Your task to perform on an android device: change notifications settings Image 0: 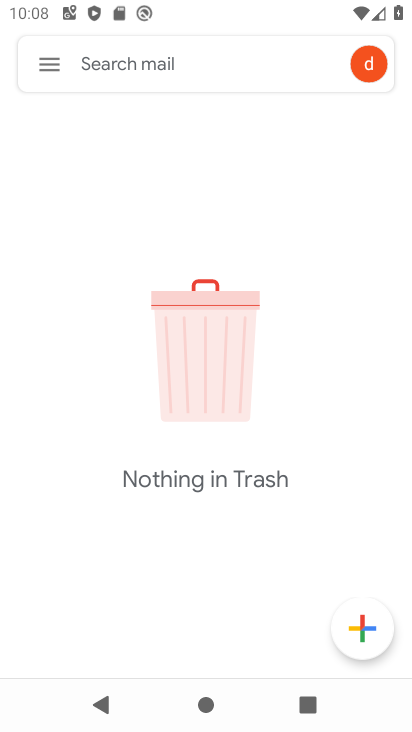
Step 0: press home button
Your task to perform on an android device: change notifications settings Image 1: 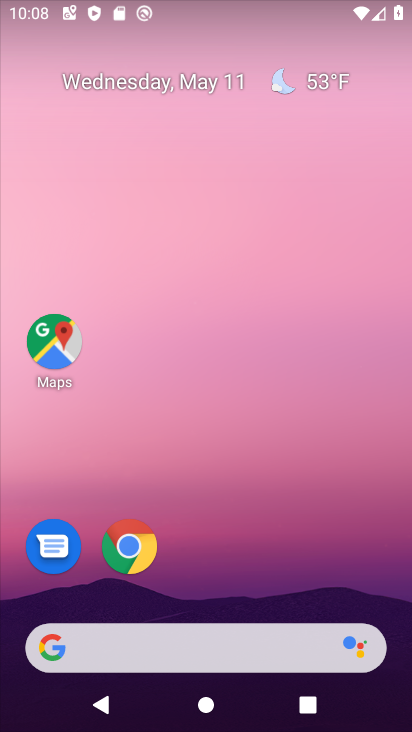
Step 1: drag from (393, 613) to (361, 80)
Your task to perform on an android device: change notifications settings Image 2: 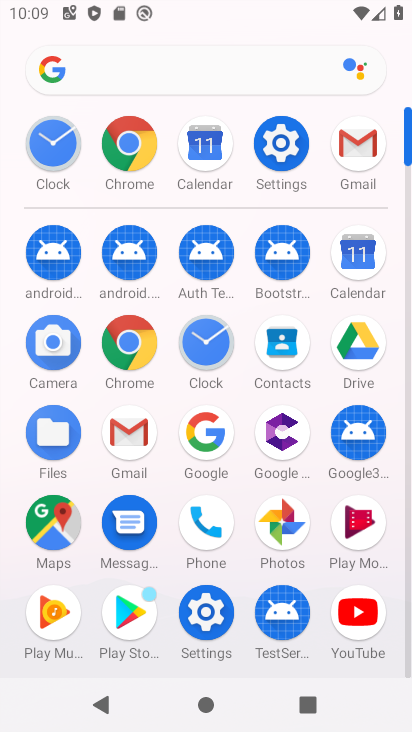
Step 2: click (209, 610)
Your task to perform on an android device: change notifications settings Image 3: 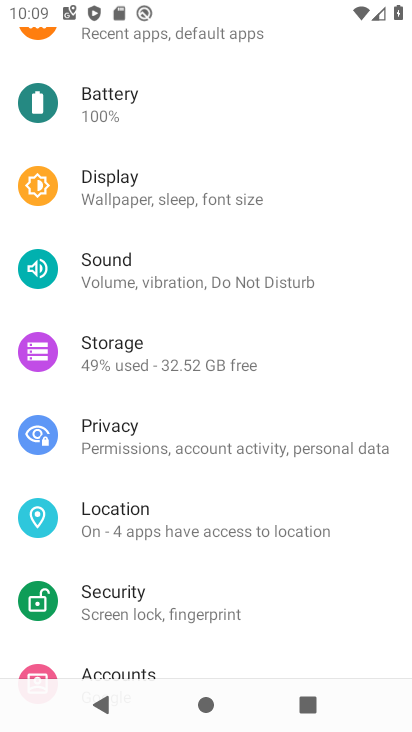
Step 3: drag from (205, 145) to (221, 642)
Your task to perform on an android device: change notifications settings Image 4: 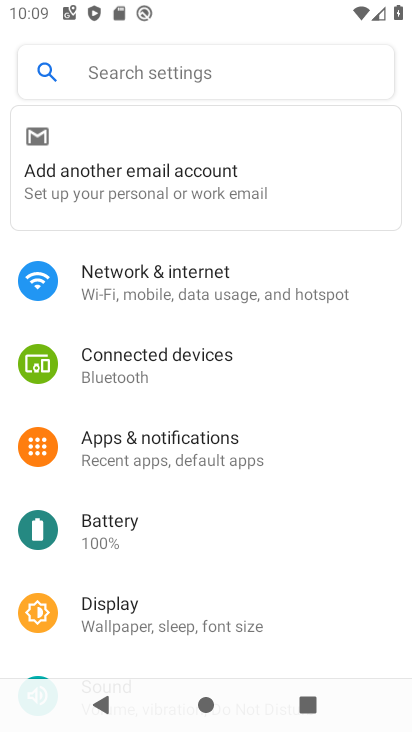
Step 4: click (190, 437)
Your task to perform on an android device: change notifications settings Image 5: 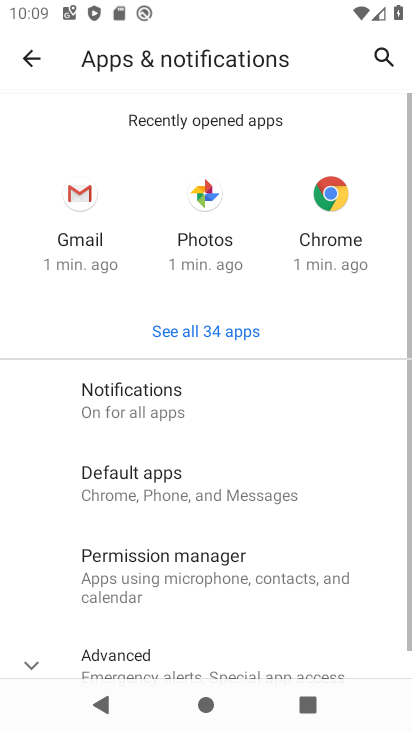
Step 5: click (139, 424)
Your task to perform on an android device: change notifications settings Image 6: 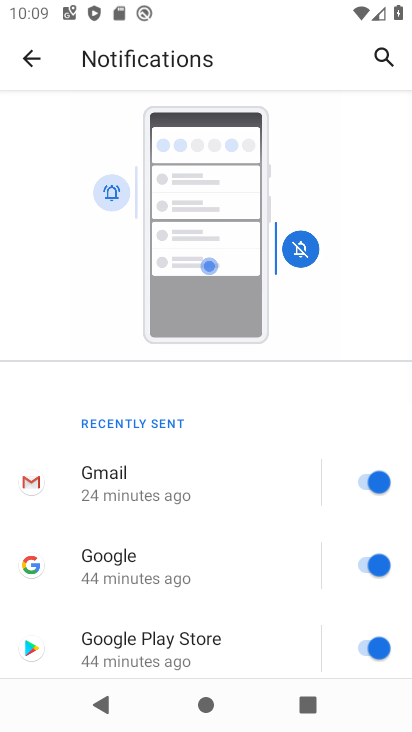
Step 6: task complete